Your task to perform on an android device: turn on sleep mode Image 0: 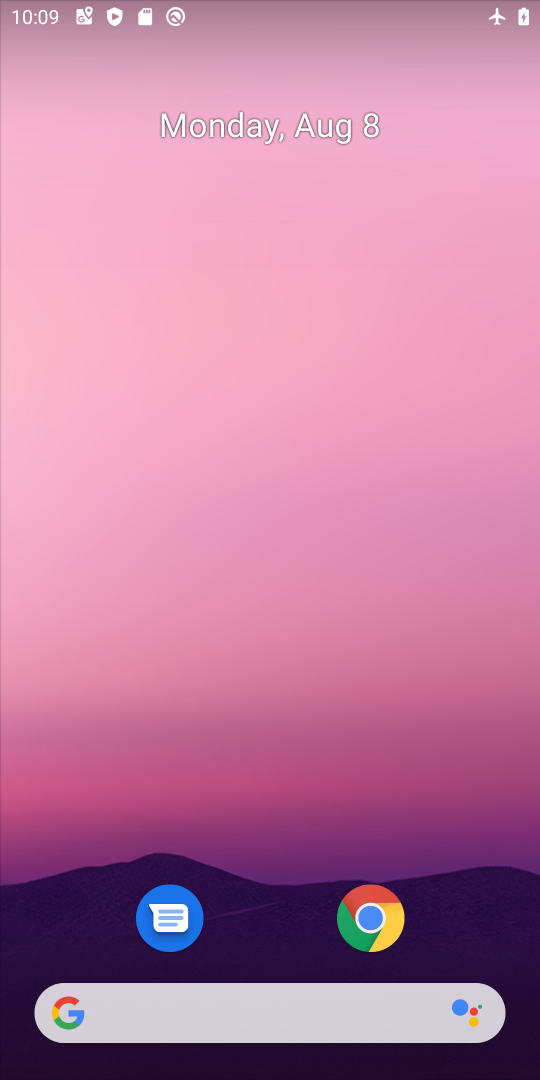
Step 0: drag from (230, 987) to (215, 7)
Your task to perform on an android device: turn on sleep mode Image 1: 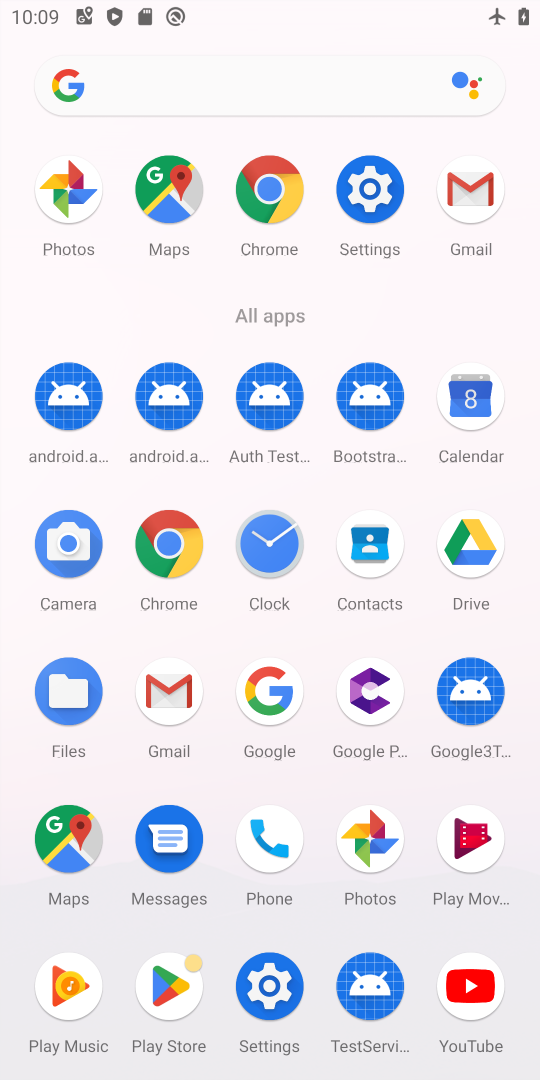
Step 1: click (261, 976)
Your task to perform on an android device: turn on sleep mode Image 2: 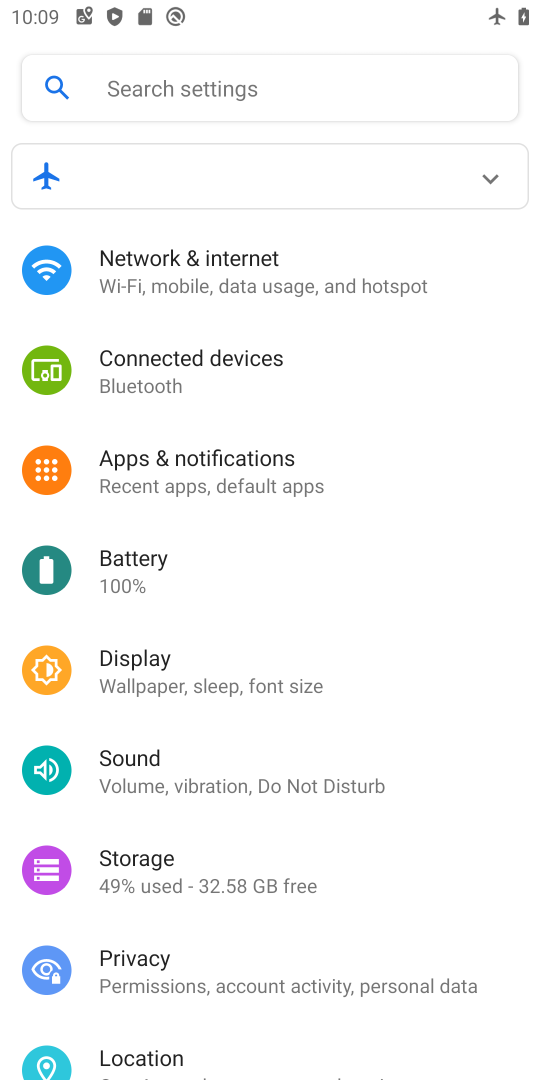
Step 2: click (133, 683)
Your task to perform on an android device: turn on sleep mode Image 3: 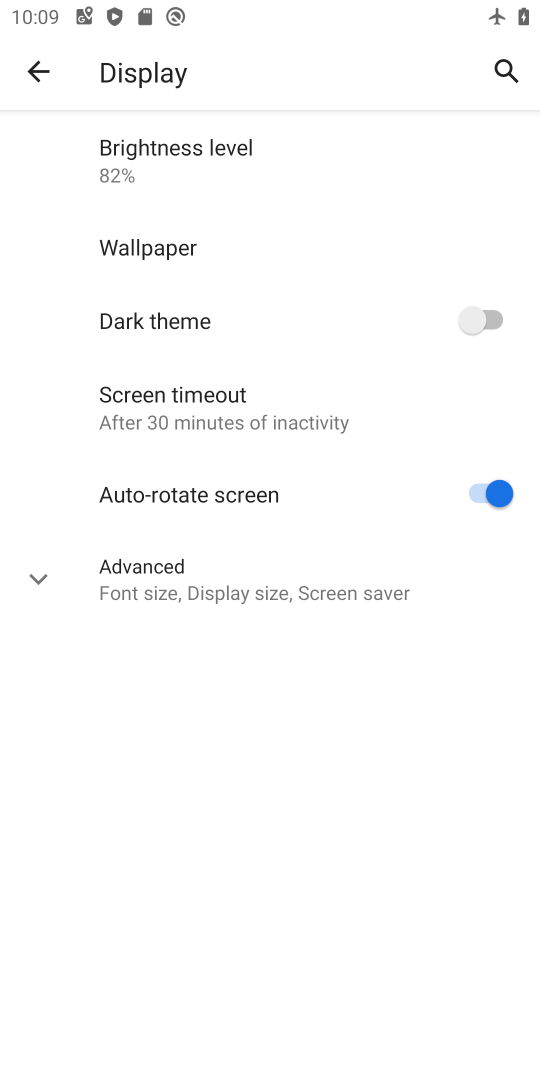
Step 3: click (207, 552)
Your task to perform on an android device: turn on sleep mode Image 4: 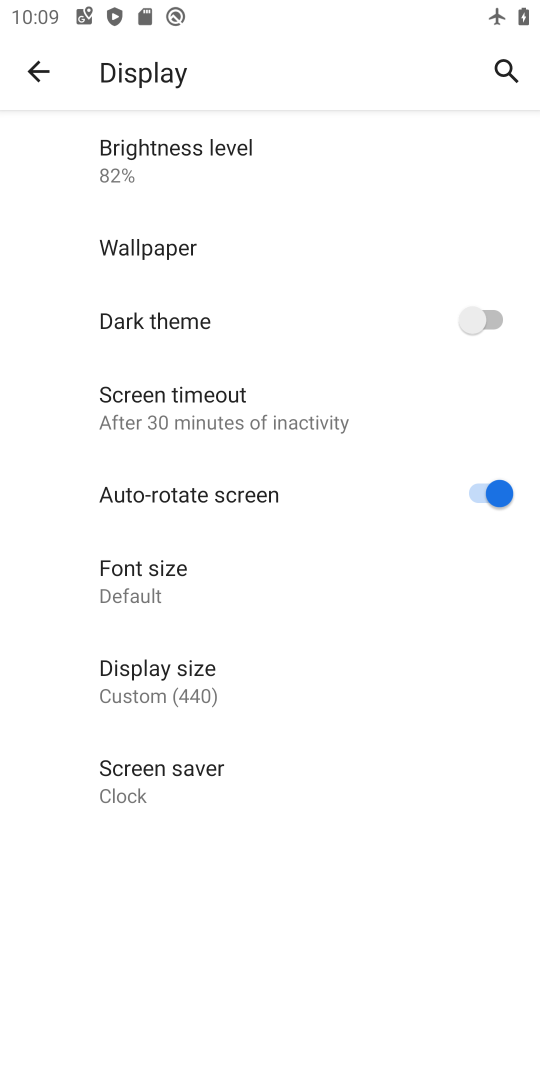
Step 4: task complete